Your task to perform on an android device: Clear all items from cart on walmart. Search for apple airpods on walmart, select the first entry, add it to the cart, then select checkout. Image 0: 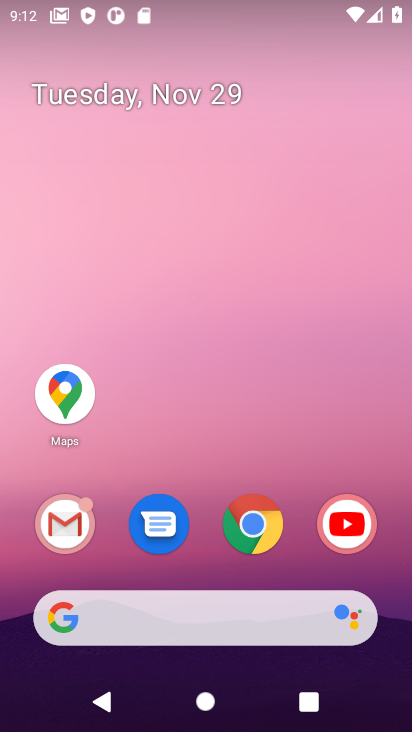
Step 0: click (248, 524)
Your task to perform on an android device: Clear all items from cart on walmart. Search for apple airpods on walmart, select the first entry, add it to the cart, then select checkout. Image 1: 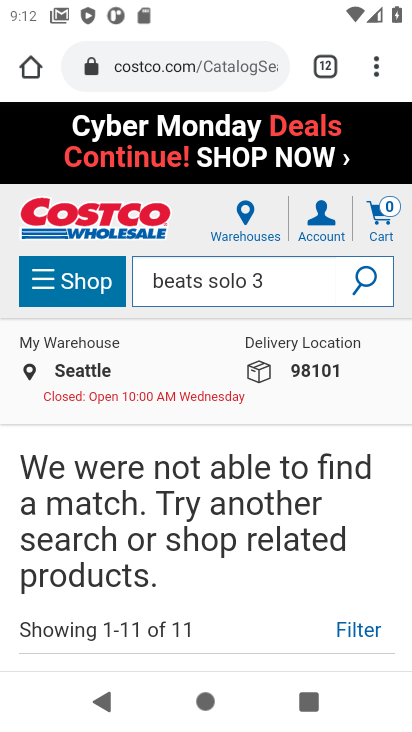
Step 1: click (167, 67)
Your task to perform on an android device: Clear all items from cart on walmart. Search for apple airpods on walmart, select the first entry, add it to the cart, then select checkout. Image 2: 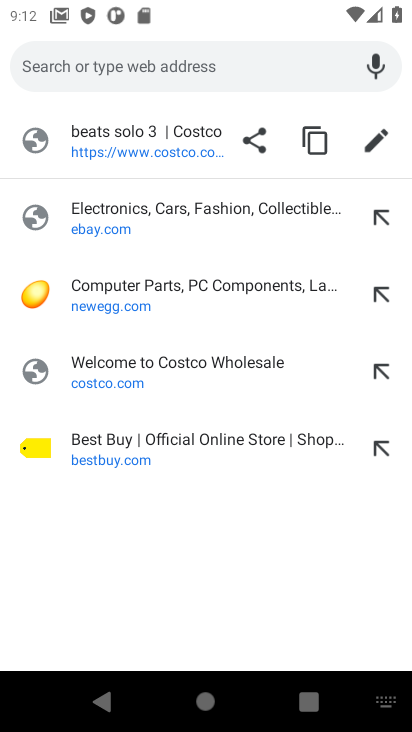
Step 2: type "walmart.com"
Your task to perform on an android device: Clear all items from cart on walmart. Search for apple airpods on walmart, select the first entry, add it to the cart, then select checkout. Image 3: 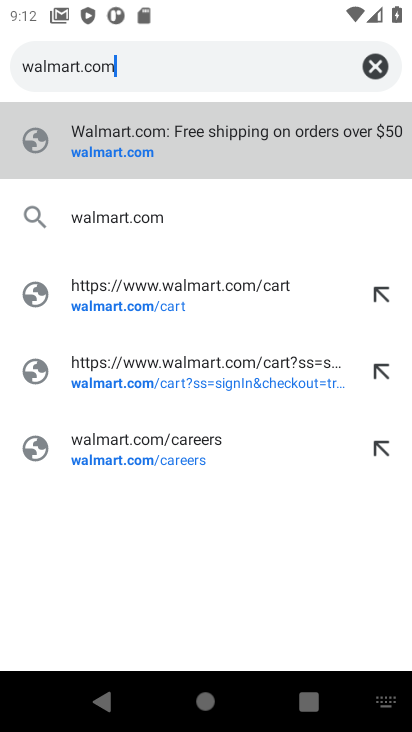
Step 3: click (116, 160)
Your task to perform on an android device: Clear all items from cart on walmart. Search for apple airpods on walmart, select the first entry, add it to the cart, then select checkout. Image 4: 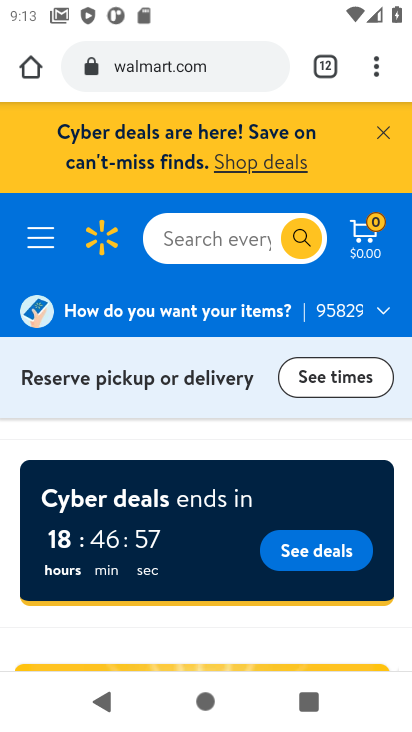
Step 4: click (365, 233)
Your task to perform on an android device: Clear all items from cart on walmart. Search for apple airpods on walmart, select the first entry, add it to the cart, then select checkout. Image 5: 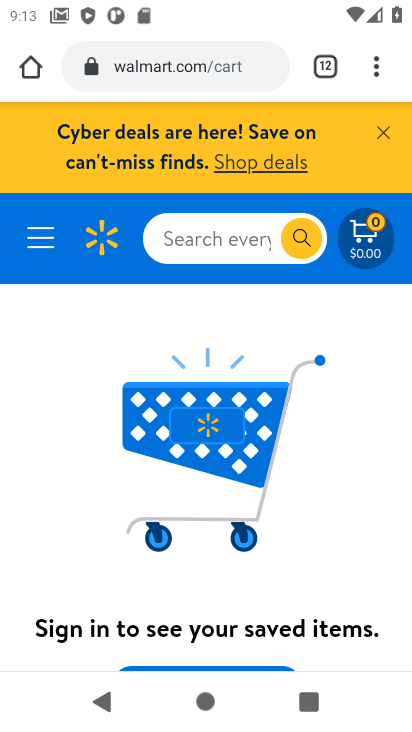
Step 5: click (182, 243)
Your task to perform on an android device: Clear all items from cart on walmart. Search for apple airpods on walmart, select the first entry, add it to the cart, then select checkout. Image 6: 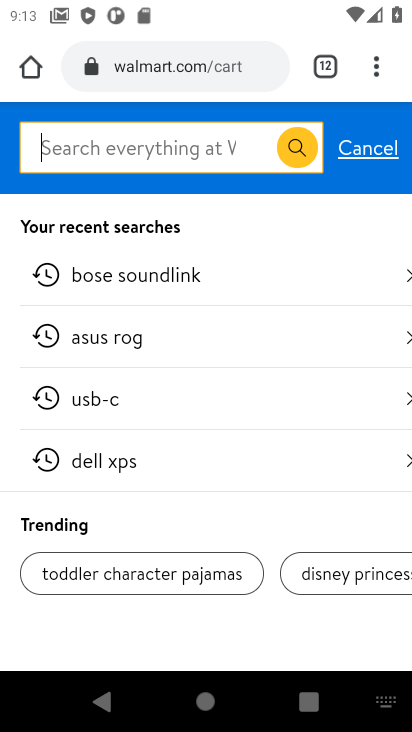
Step 6: type "apple airpods "
Your task to perform on an android device: Clear all items from cart on walmart. Search for apple airpods on walmart, select the first entry, add it to the cart, then select checkout. Image 7: 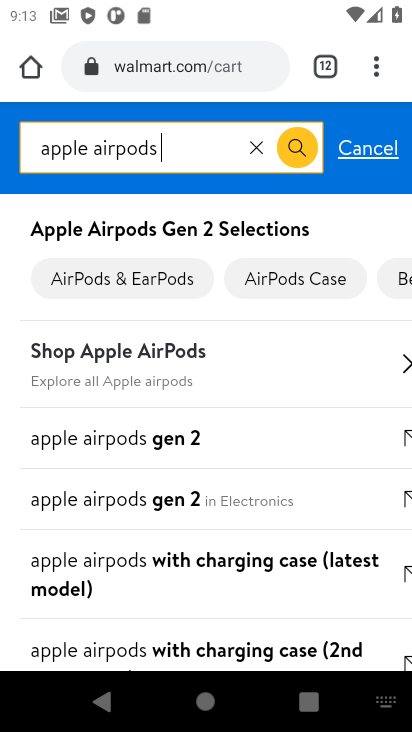
Step 7: click (297, 148)
Your task to perform on an android device: Clear all items from cart on walmart. Search for apple airpods on walmart, select the first entry, add it to the cart, then select checkout. Image 8: 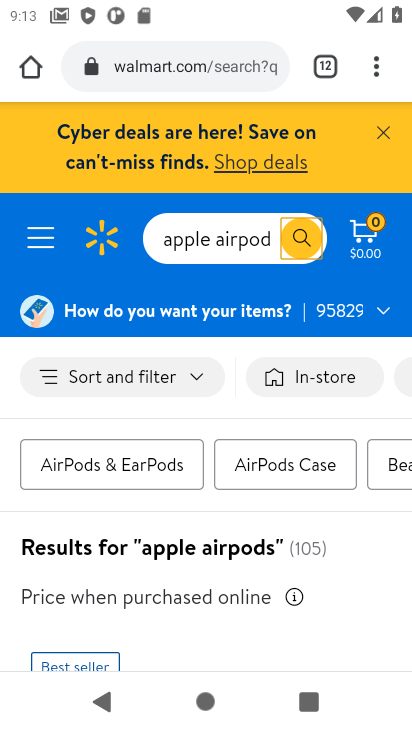
Step 8: drag from (215, 527) to (213, 205)
Your task to perform on an android device: Clear all items from cart on walmart. Search for apple airpods on walmart, select the first entry, add it to the cart, then select checkout. Image 9: 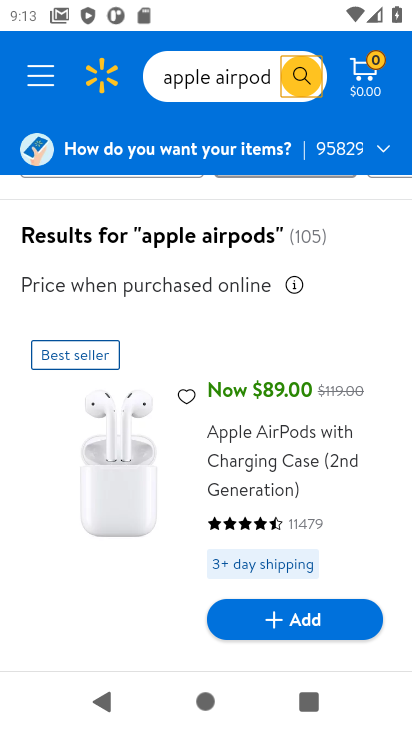
Step 9: click (289, 619)
Your task to perform on an android device: Clear all items from cart on walmart. Search for apple airpods on walmart, select the first entry, add it to the cart, then select checkout. Image 10: 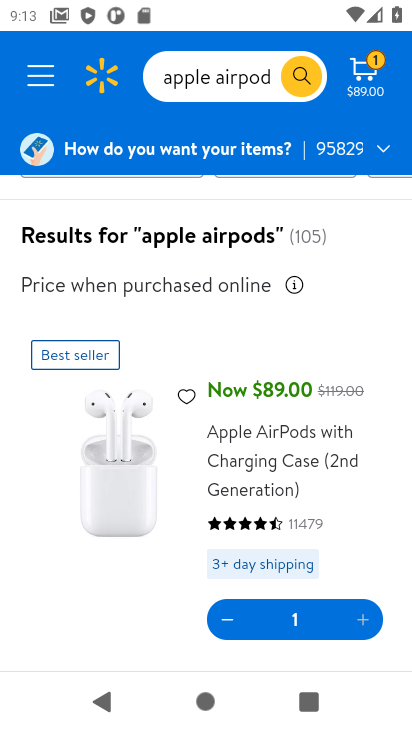
Step 10: click (360, 72)
Your task to perform on an android device: Clear all items from cart on walmart. Search for apple airpods on walmart, select the first entry, add it to the cart, then select checkout. Image 11: 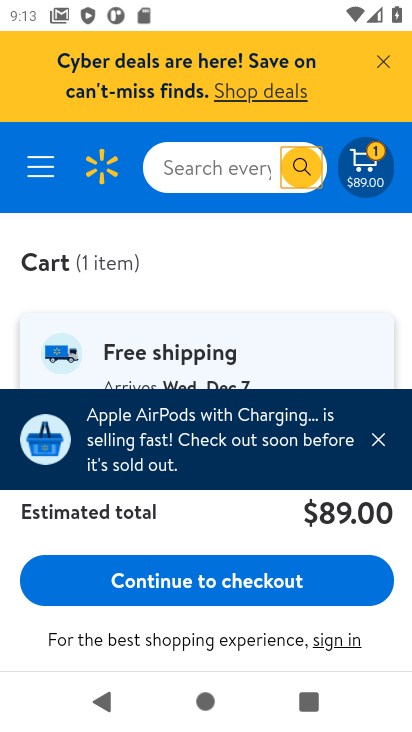
Step 11: click (188, 597)
Your task to perform on an android device: Clear all items from cart on walmart. Search for apple airpods on walmart, select the first entry, add it to the cart, then select checkout. Image 12: 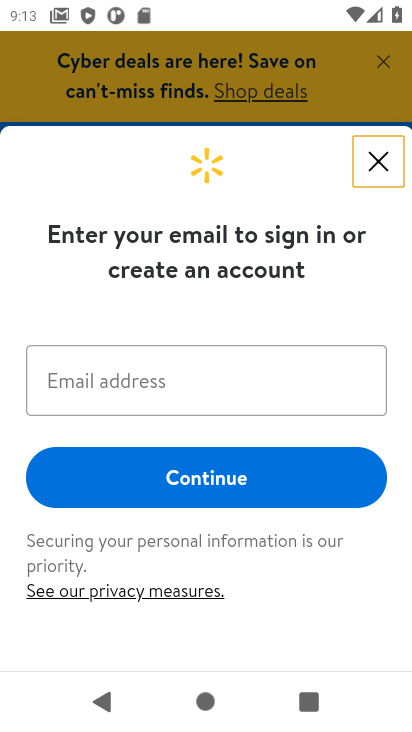
Step 12: task complete